Your task to perform on an android device: find photos in the google photos app Image 0: 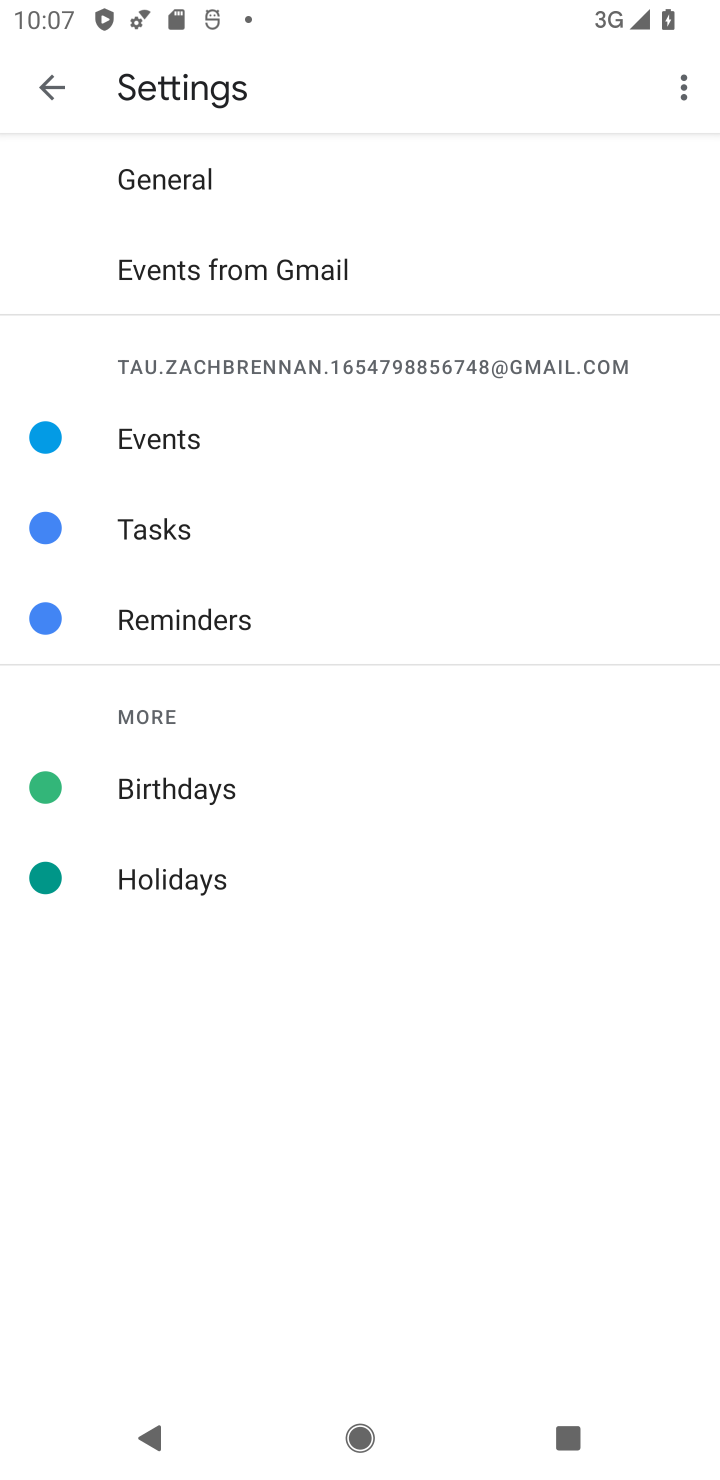
Step 0: press home button
Your task to perform on an android device: find photos in the google photos app Image 1: 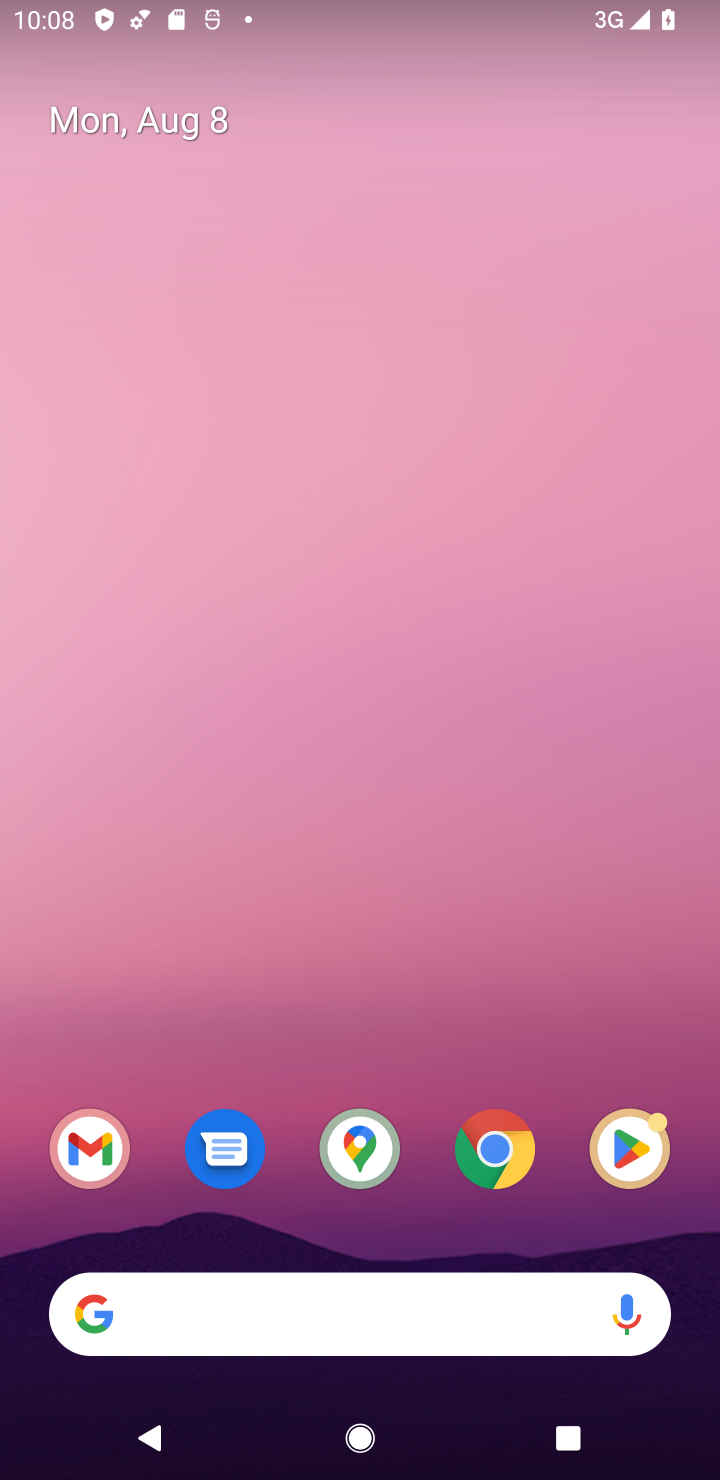
Step 1: drag from (207, 1241) to (207, 669)
Your task to perform on an android device: find photos in the google photos app Image 2: 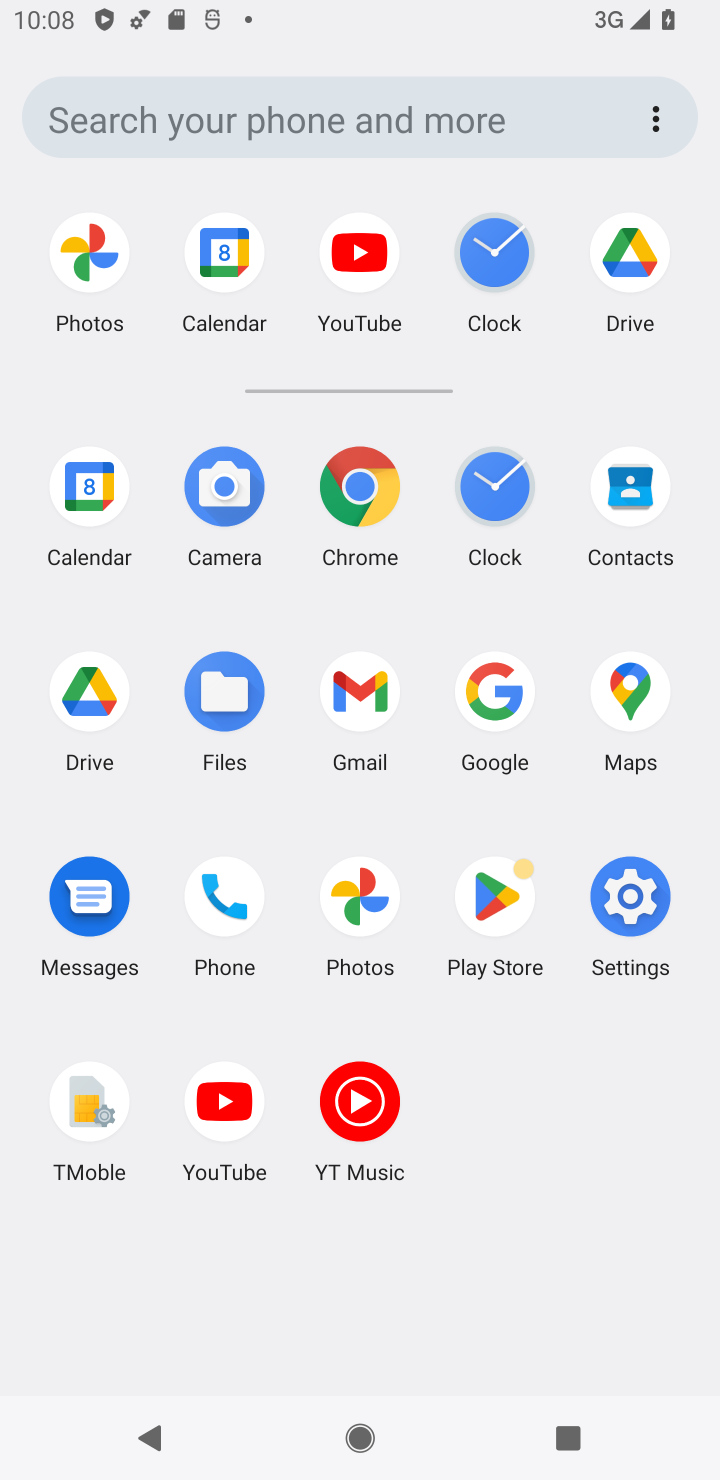
Step 2: click (365, 905)
Your task to perform on an android device: find photos in the google photos app Image 3: 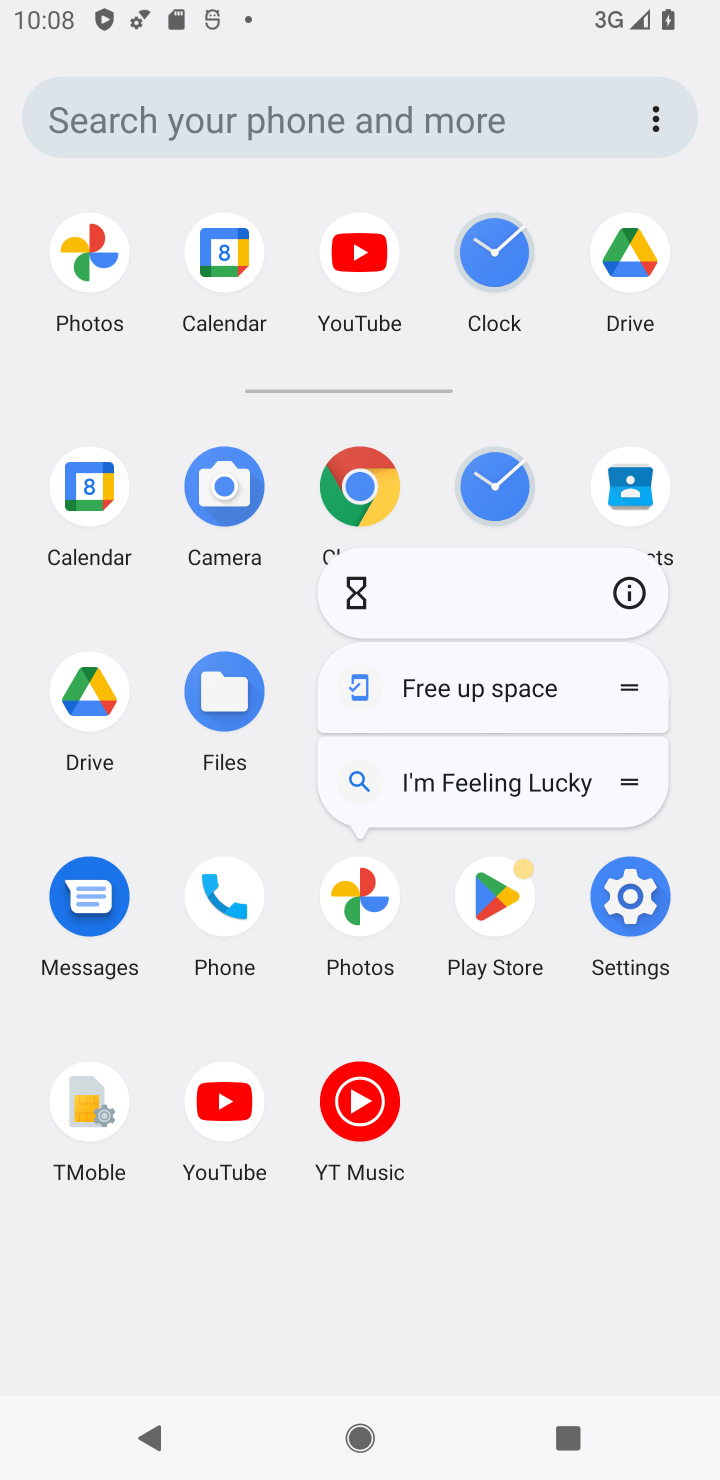
Step 3: click (343, 917)
Your task to perform on an android device: find photos in the google photos app Image 4: 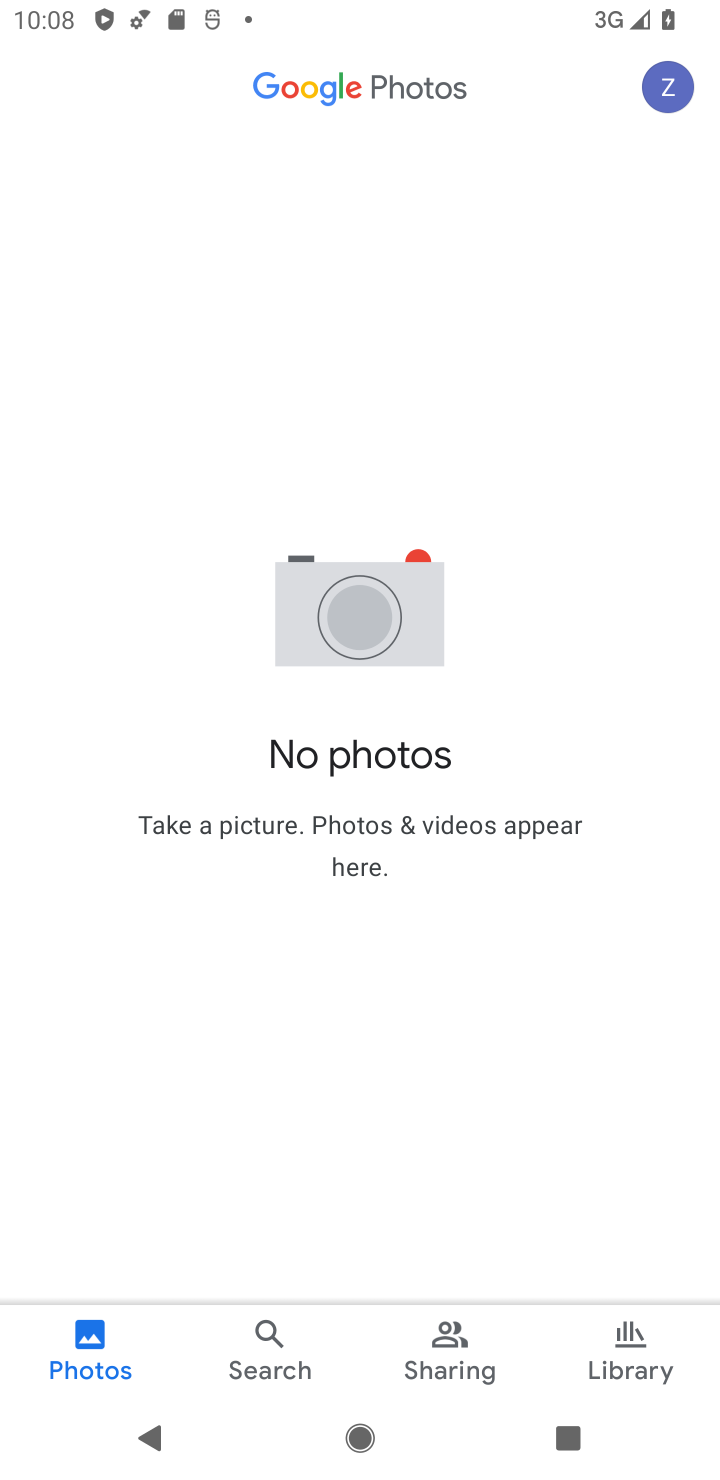
Step 4: task complete